Your task to perform on an android device: open a bookmark in the chrome app Image 0: 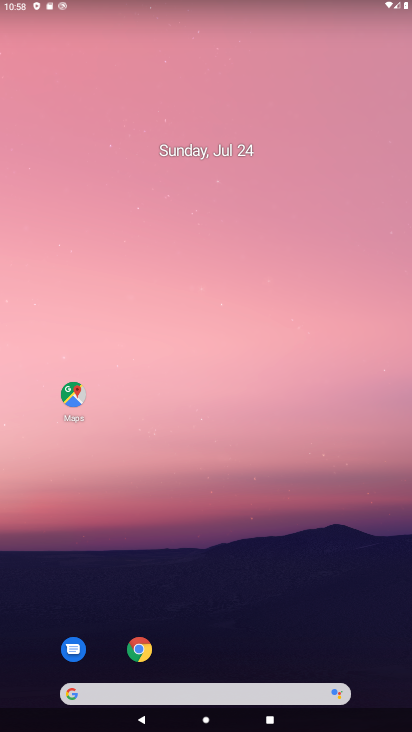
Step 0: click (134, 657)
Your task to perform on an android device: open a bookmark in the chrome app Image 1: 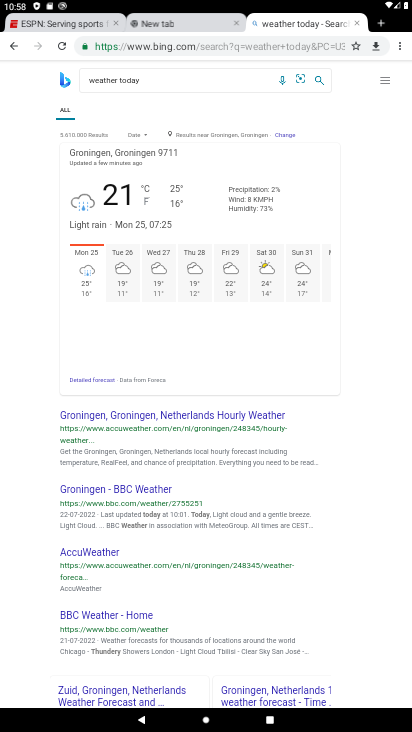
Step 1: drag from (398, 43) to (321, 90)
Your task to perform on an android device: open a bookmark in the chrome app Image 2: 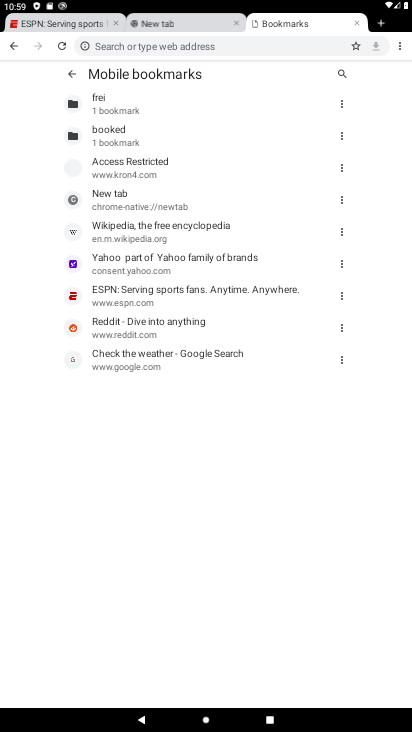
Step 2: click (161, 233)
Your task to perform on an android device: open a bookmark in the chrome app Image 3: 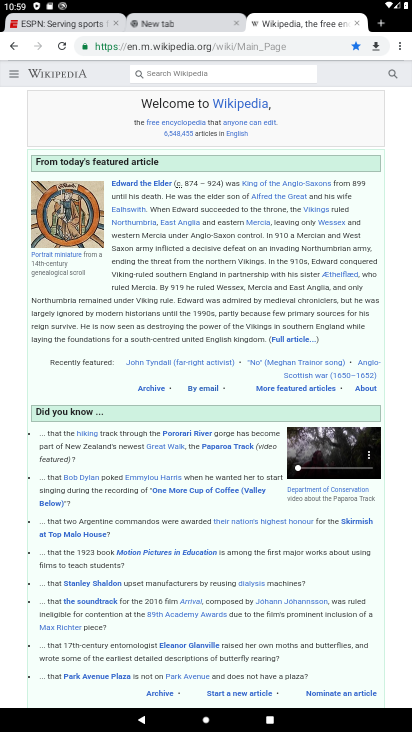
Step 3: task complete